Your task to perform on an android device: Open Google Chrome Image 0: 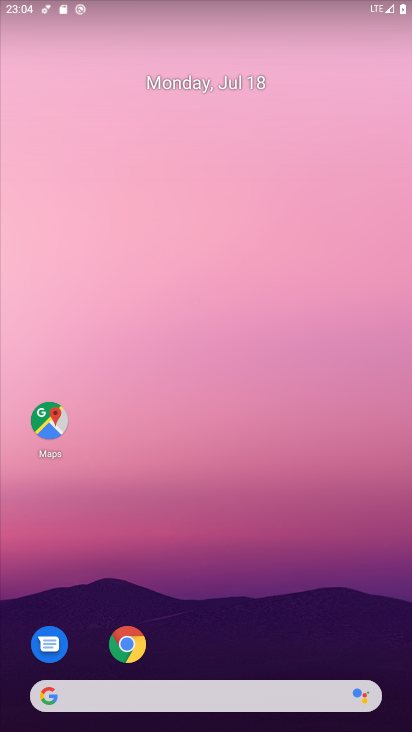
Step 0: drag from (331, 631) to (376, 147)
Your task to perform on an android device: Open Google Chrome Image 1: 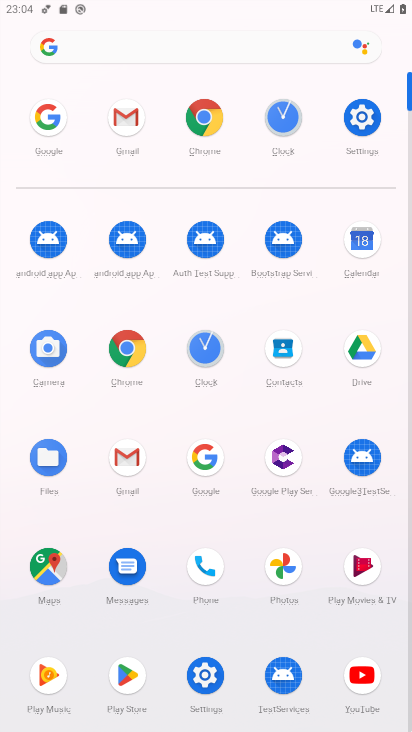
Step 1: click (129, 353)
Your task to perform on an android device: Open Google Chrome Image 2: 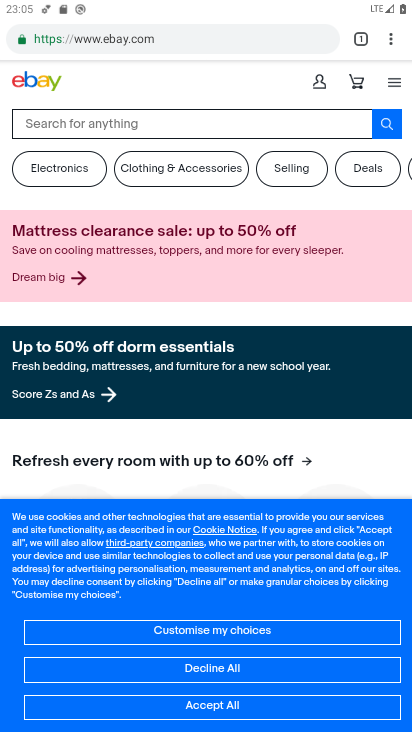
Step 2: task complete